Your task to perform on an android device: turn off picture-in-picture Image 0: 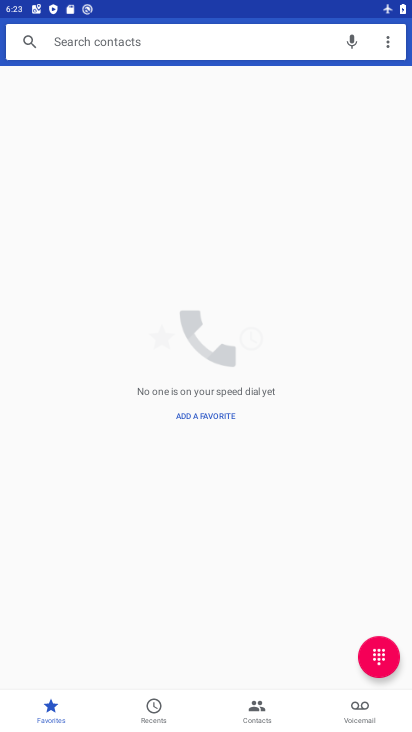
Step 0: press home button
Your task to perform on an android device: turn off picture-in-picture Image 1: 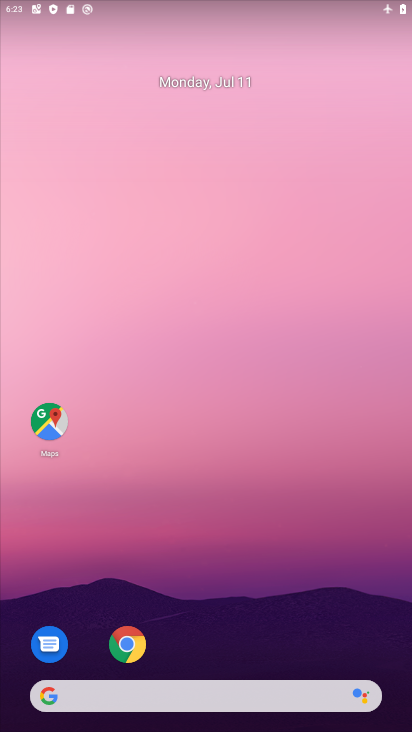
Step 1: drag from (118, 564) to (156, 50)
Your task to perform on an android device: turn off picture-in-picture Image 2: 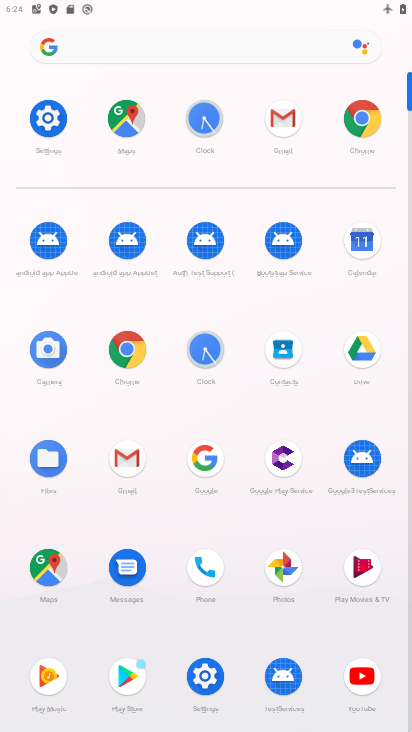
Step 2: click (54, 103)
Your task to perform on an android device: turn off picture-in-picture Image 3: 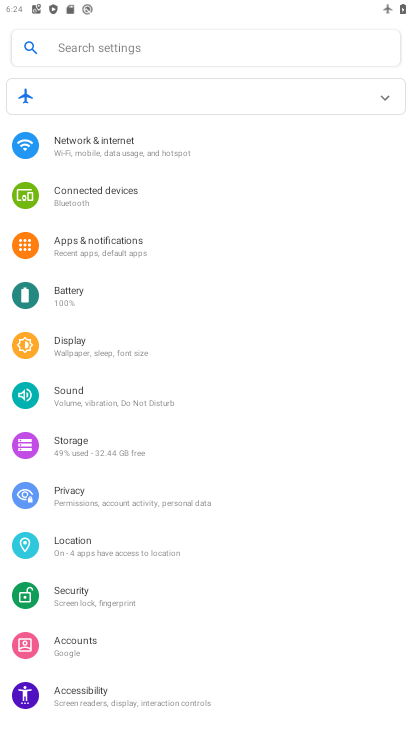
Step 3: drag from (186, 680) to (171, 59)
Your task to perform on an android device: turn off picture-in-picture Image 4: 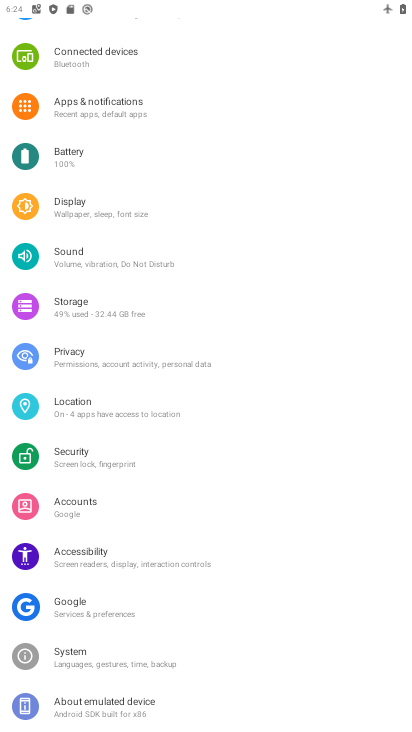
Step 4: click (97, 97)
Your task to perform on an android device: turn off picture-in-picture Image 5: 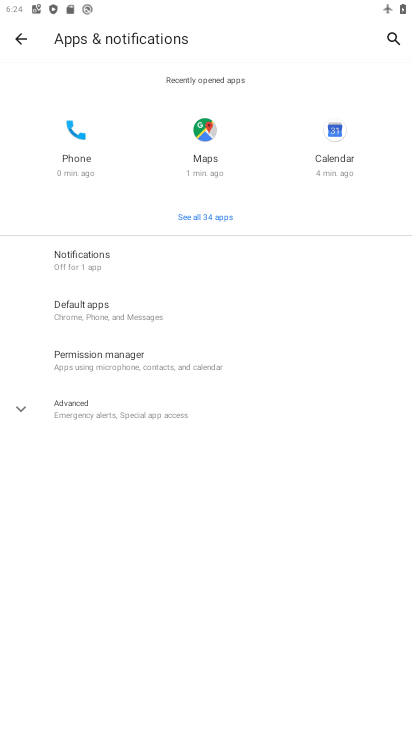
Step 5: click (105, 409)
Your task to perform on an android device: turn off picture-in-picture Image 6: 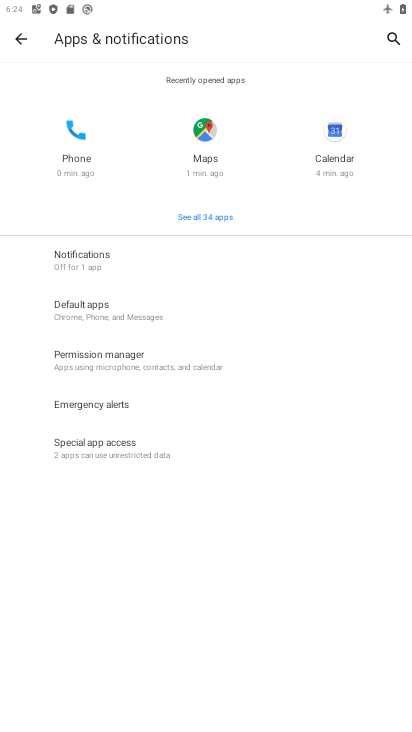
Step 6: click (132, 450)
Your task to perform on an android device: turn off picture-in-picture Image 7: 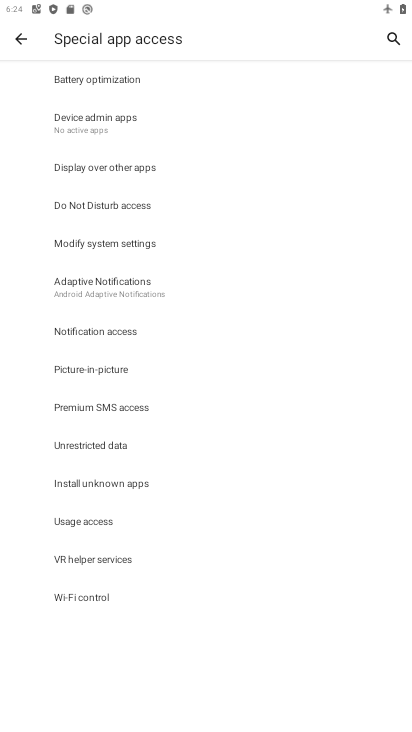
Step 7: click (93, 370)
Your task to perform on an android device: turn off picture-in-picture Image 8: 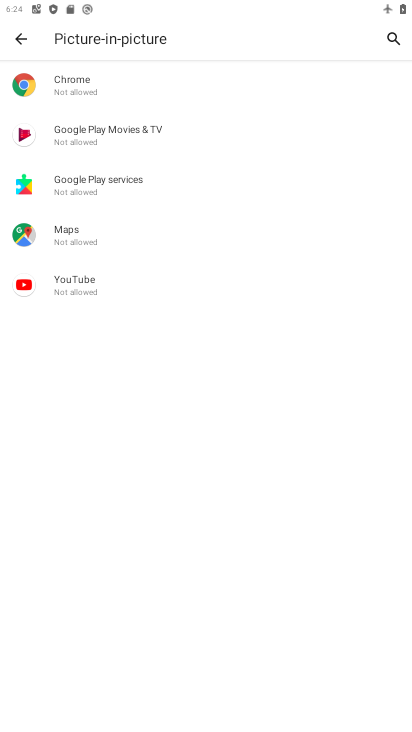
Step 8: task complete